Your task to perform on an android device: Open accessibility settings Image 0: 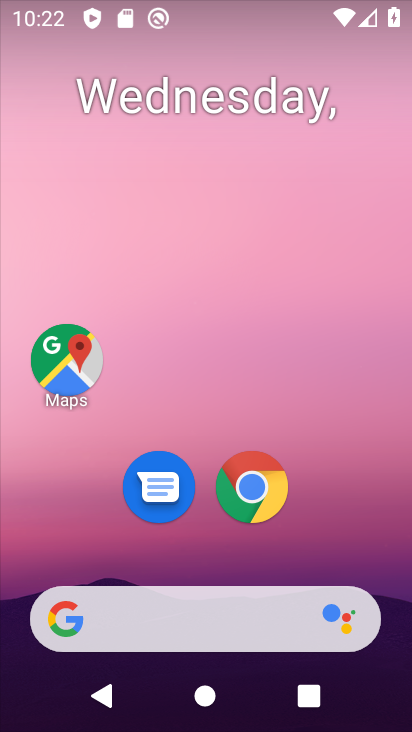
Step 0: drag from (136, 644) to (147, 51)
Your task to perform on an android device: Open accessibility settings Image 1: 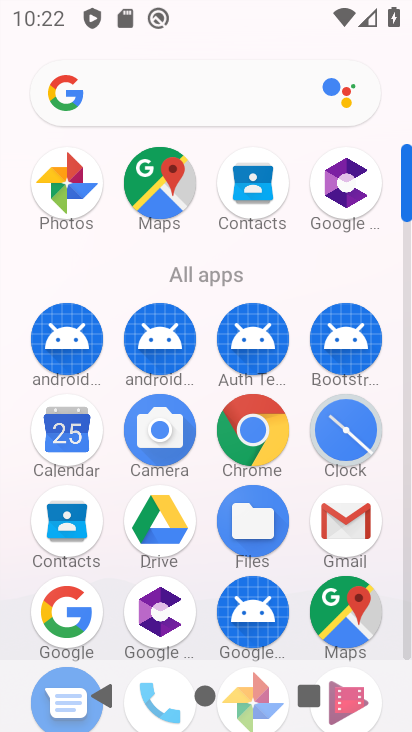
Step 1: drag from (311, 613) to (327, 148)
Your task to perform on an android device: Open accessibility settings Image 2: 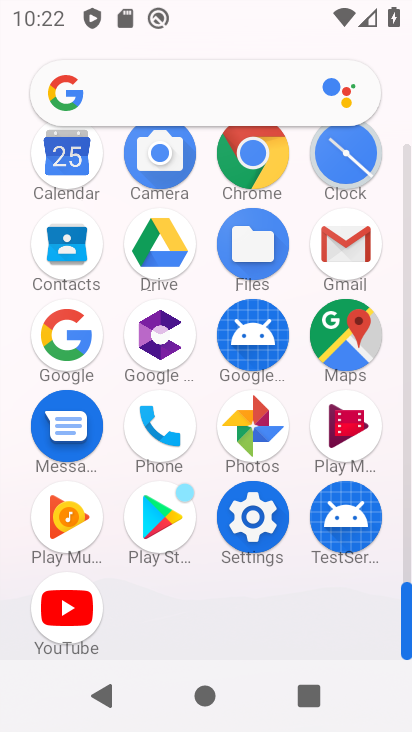
Step 2: click (252, 518)
Your task to perform on an android device: Open accessibility settings Image 3: 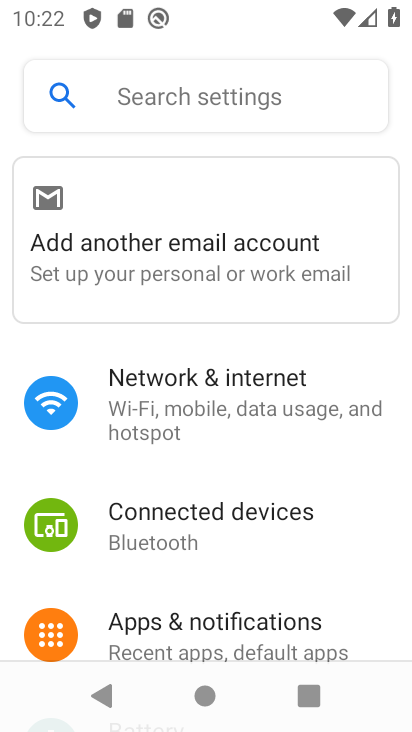
Step 3: drag from (236, 586) to (271, 0)
Your task to perform on an android device: Open accessibility settings Image 4: 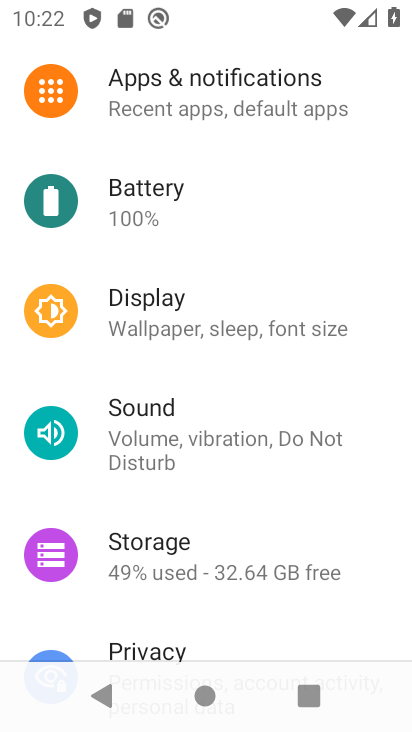
Step 4: drag from (244, 658) to (311, 95)
Your task to perform on an android device: Open accessibility settings Image 5: 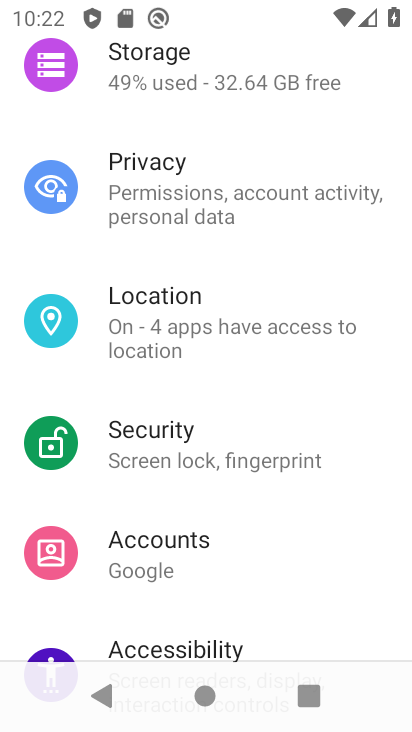
Step 5: drag from (251, 631) to (327, 308)
Your task to perform on an android device: Open accessibility settings Image 6: 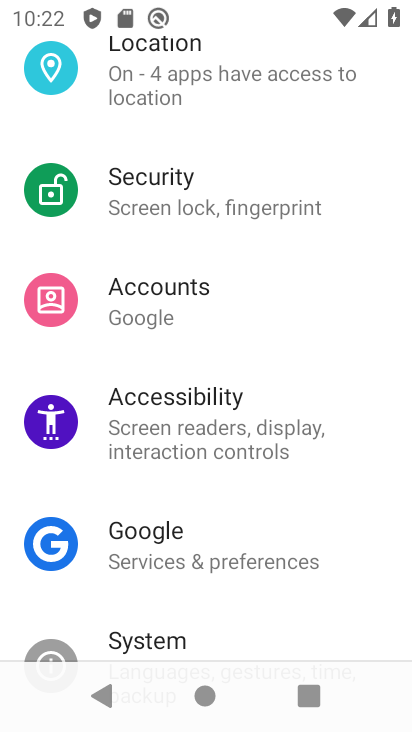
Step 6: click (272, 438)
Your task to perform on an android device: Open accessibility settings Image 7: 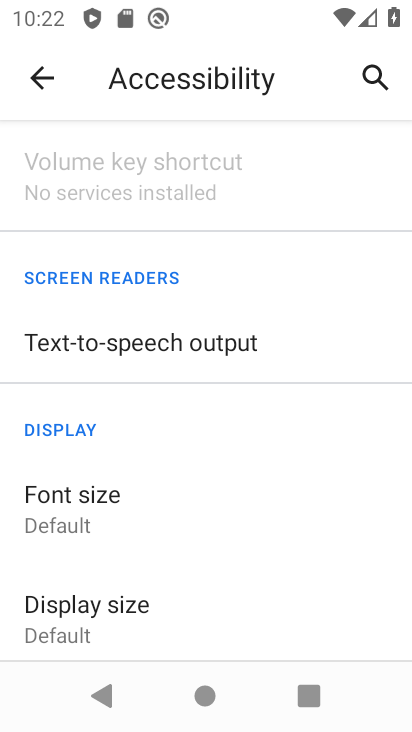
Step 7: task complete